Your task to perform on an android device: Go to battery settings Image 0: 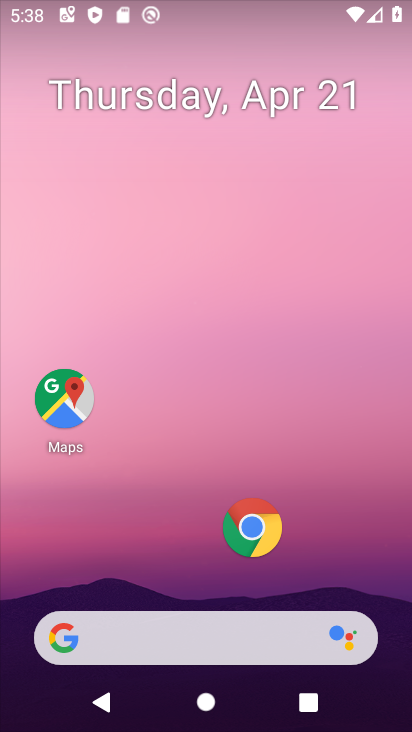
Step 0: drag from (143, 578) to (226, 27)
Your task to perform on an android device: Go to battery settings Image 1: 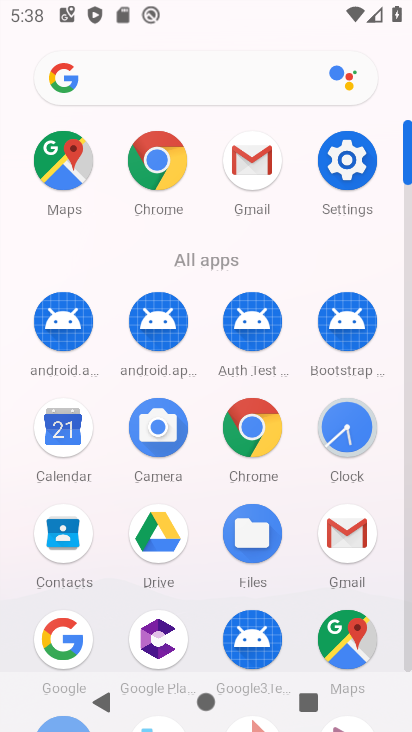
Step 1: click (347, 155)
Your task to perform on an android device: Go to battery settings Image 2: 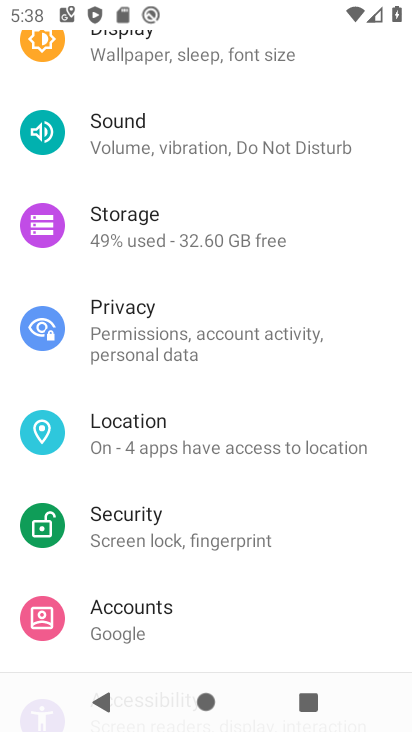
Step 2: drag from (181, 131) to (141, 573)
Your task to perform on an android device: Go to battery settings Image 3: 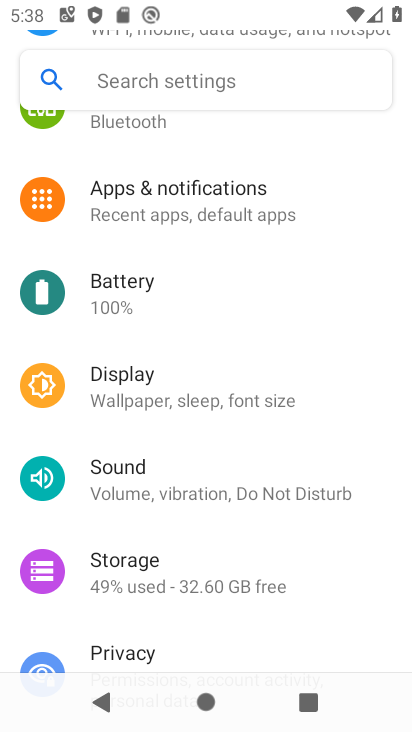
Step 3: click (172, 280)
Your task to perform on an android device: Go to battery settings Image 4: 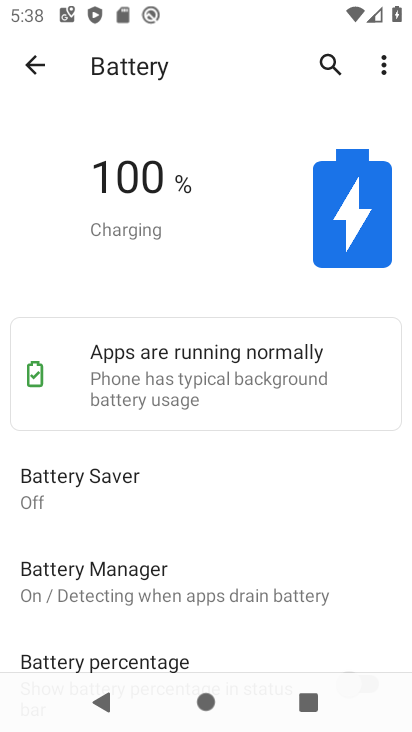
Step 4: task complete